Your task to perform on an android device: Open Amazon Image 0: 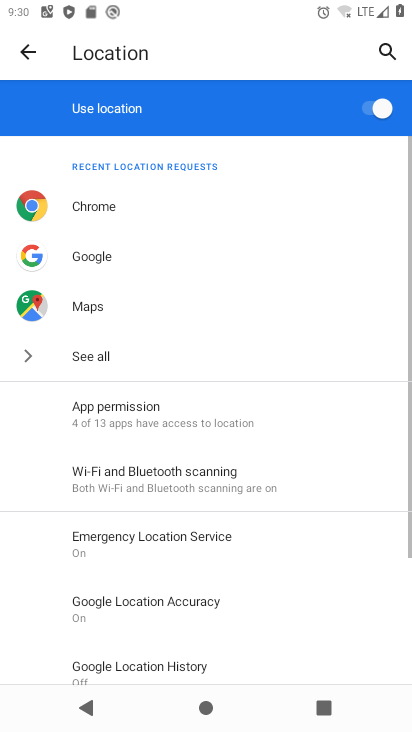
Step 0: press home button
Your task to perform on an android device: Open Amazon Image 1: 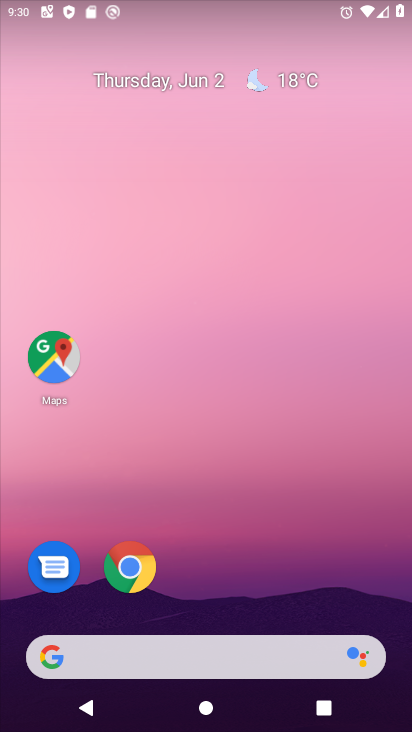
Step 1: drag from (225, 611) to (240, 32)
Your task to perform on an android device: Open Amazon Image 2: 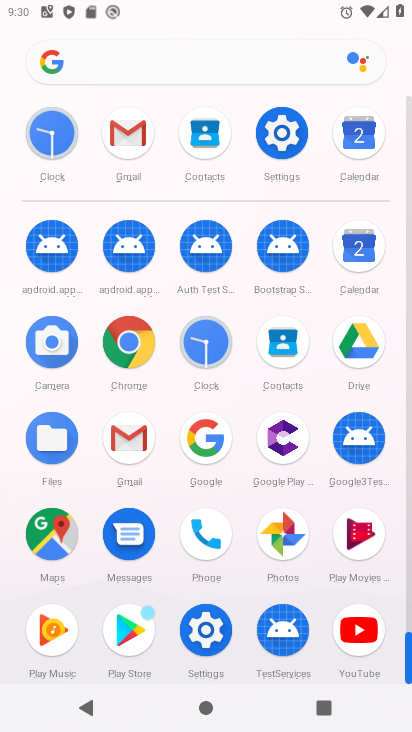
Step 2: click (127, 333)
Your task to perform on an android device: Open Amazon Image 3: 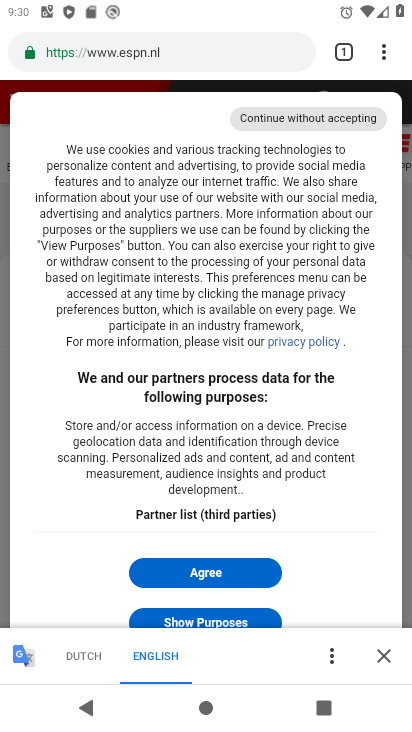
Step 3: click (348, 42)
Your task to perform on an android device: Open Amazon Image 4: 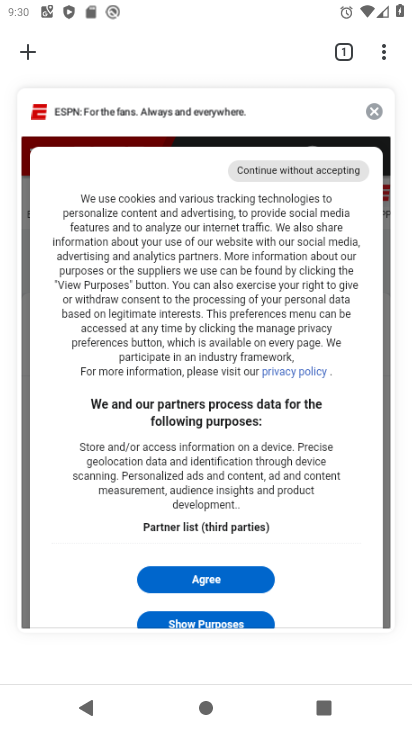
Step 4: click (376, 112)
Your task to perform on an android device: Open Amazon Image 5: 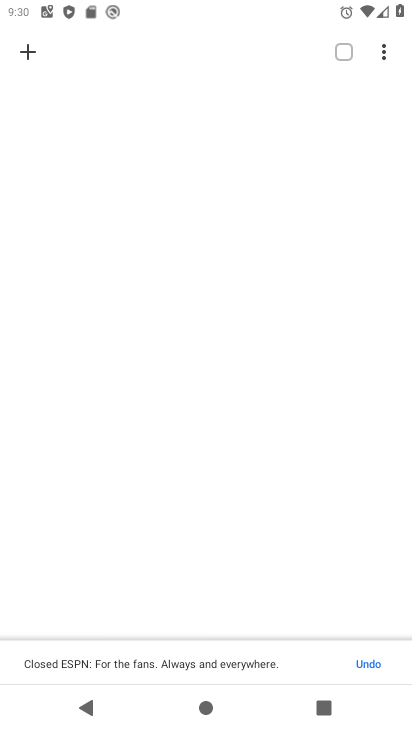
Step 5: click (19, 51)
Your task to perform on an android device: Open Amazon Image 6: 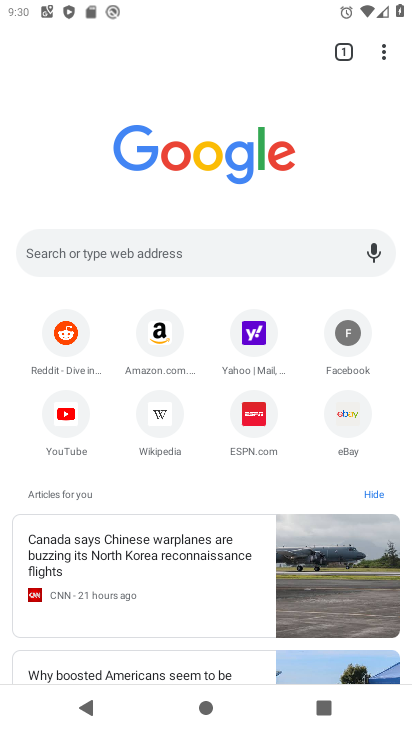
Step 6: click (151, 341)
Your task to perform on an android device: Open Amazon Image 7: 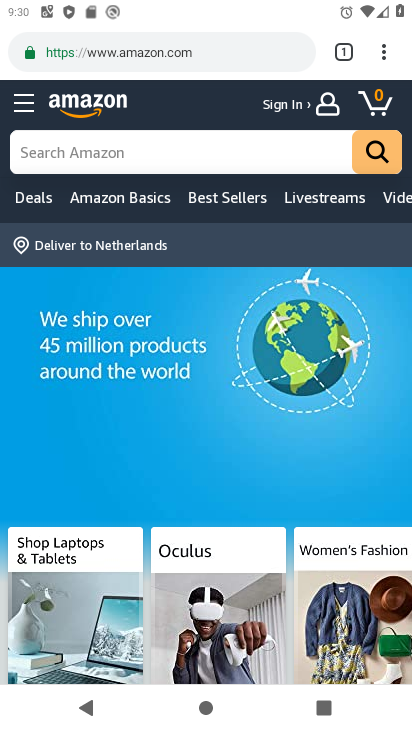
Step 7: task complete